Your task to perform on an android device: install app "File Manager" Image 0: 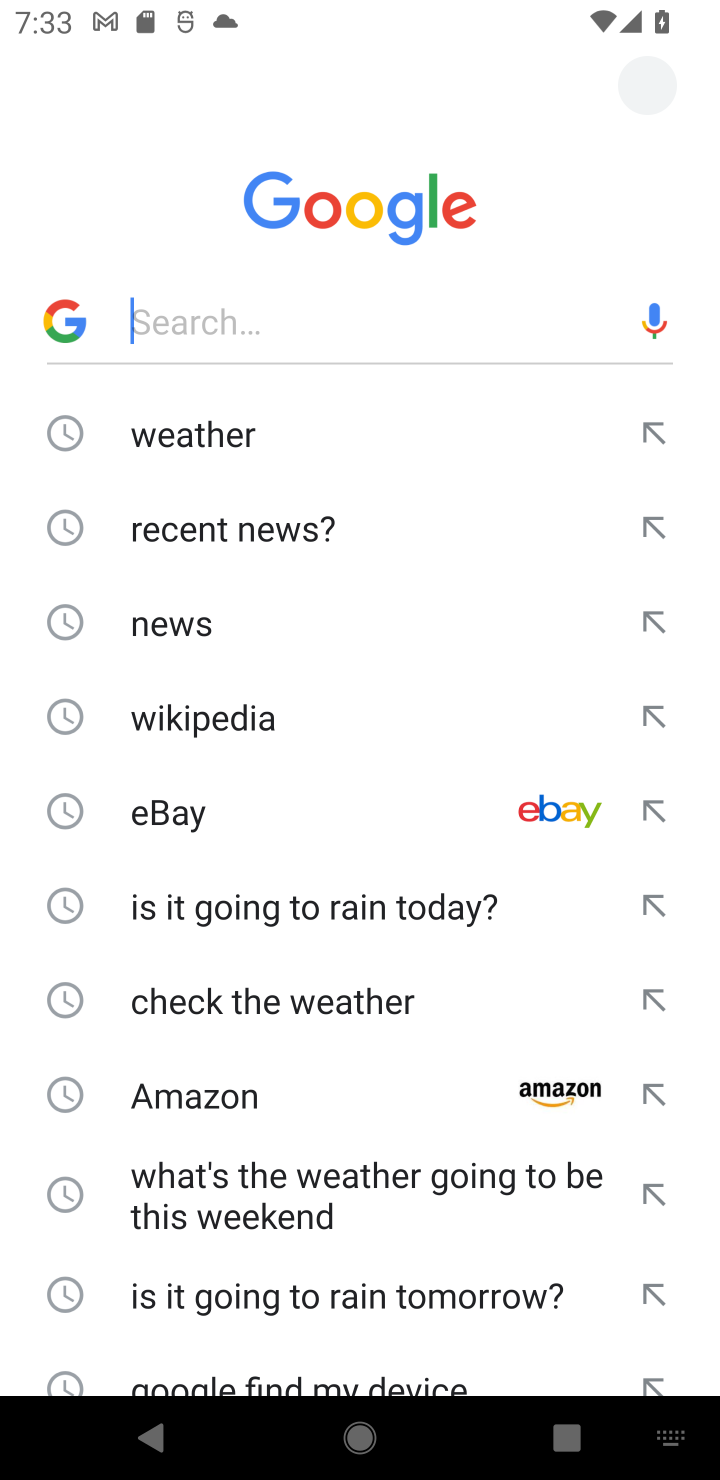
Step 0: press back button
Your task to perform on an android device: install app "File Manager" Image 1: 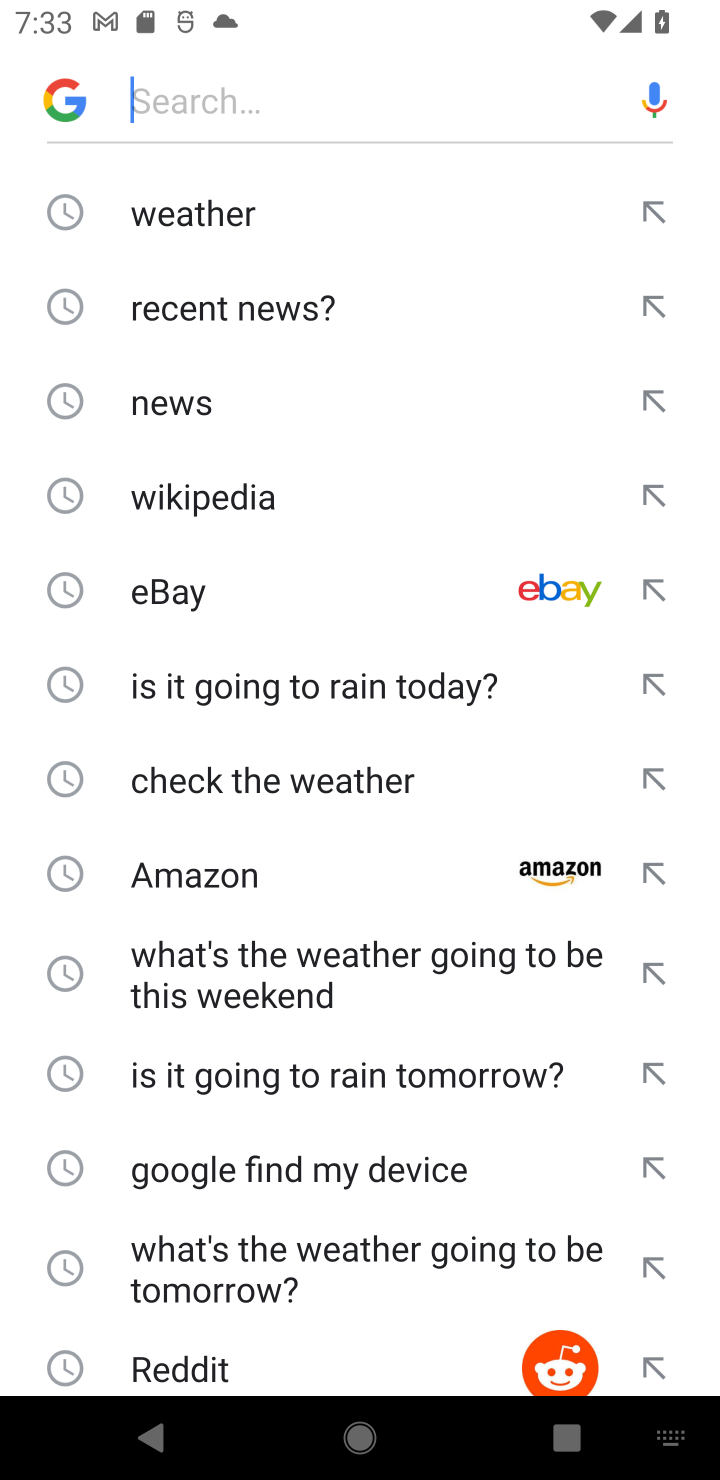
Step 1: press back button
Your task to perform on an android device: install app "File Manager" Image 2: 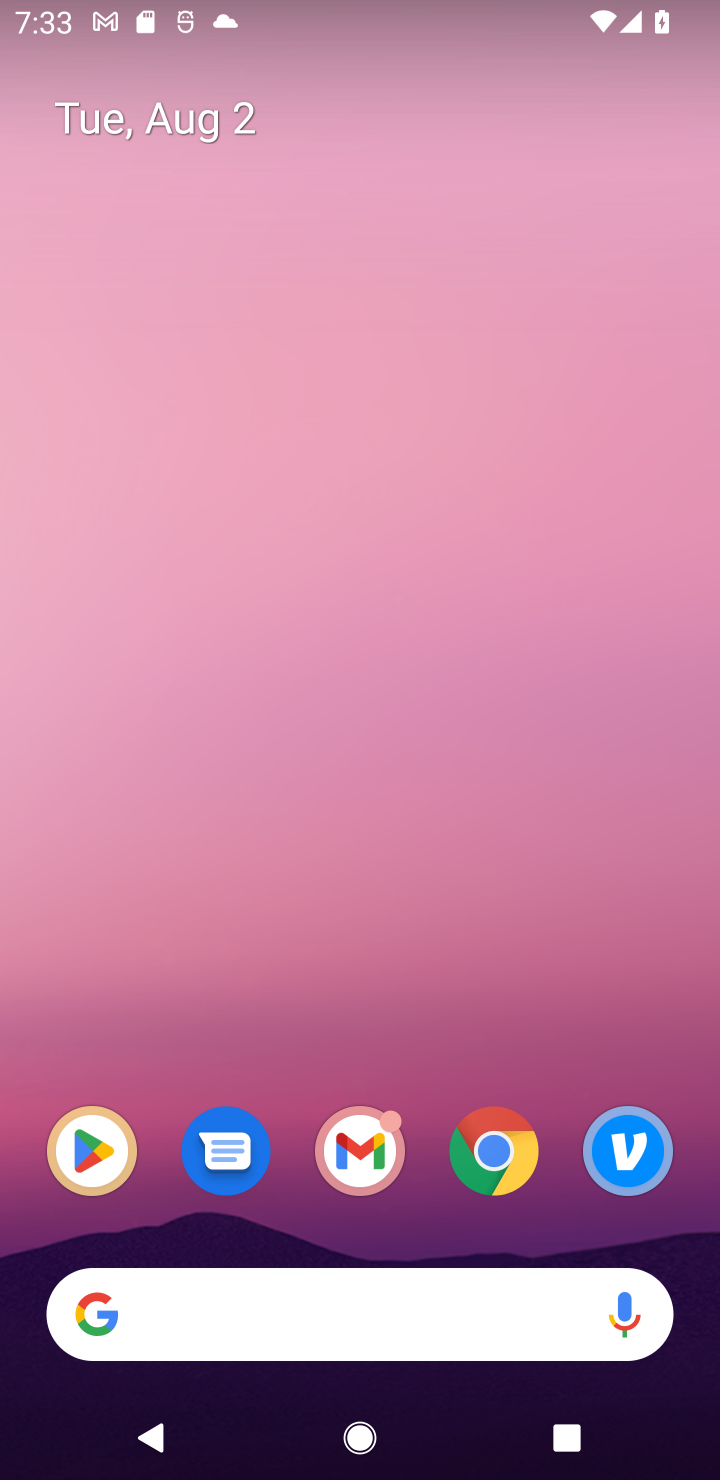
Step 2: click (108, 1134)
Your task to perform on an android device: install app "File Manager" Image 3: 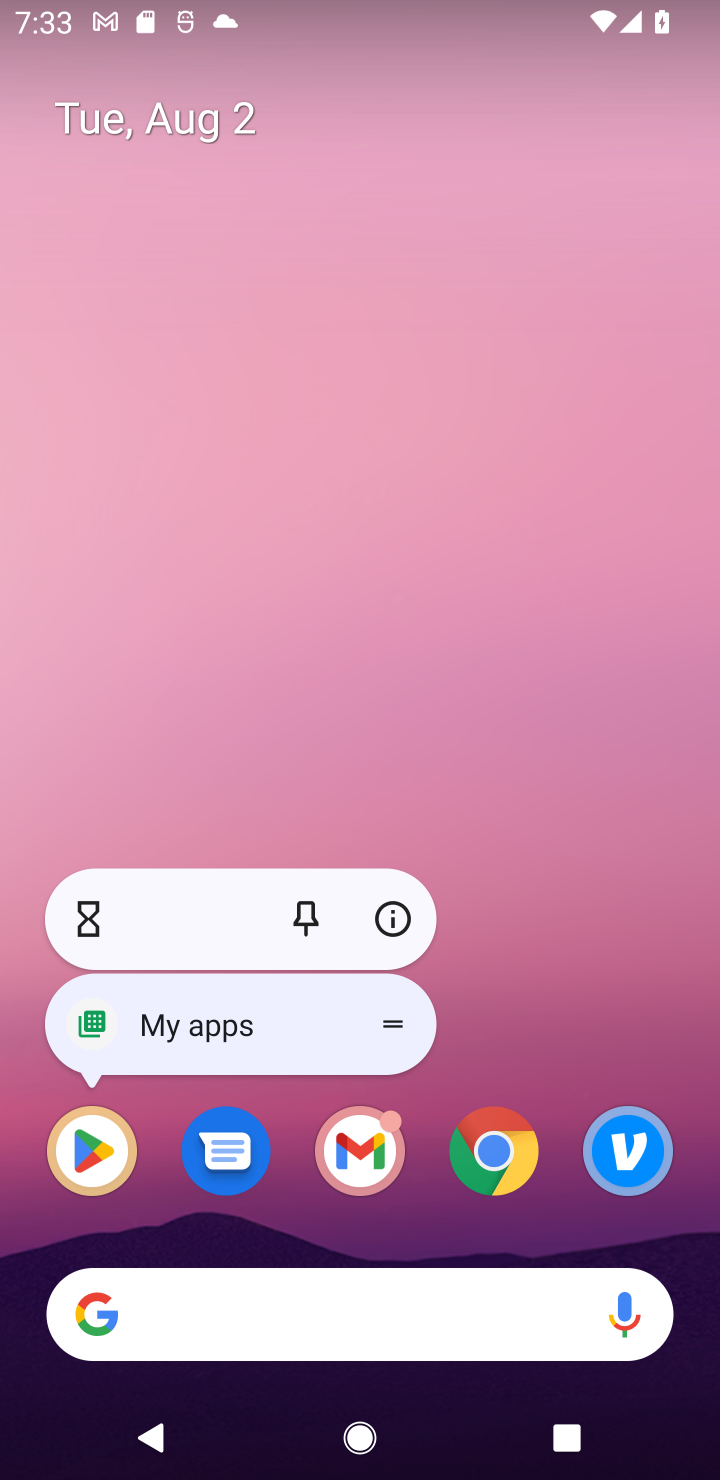
Step 3: click (108, 1134)
Your task to perform on an android device: install app "File Manager" Image 4: 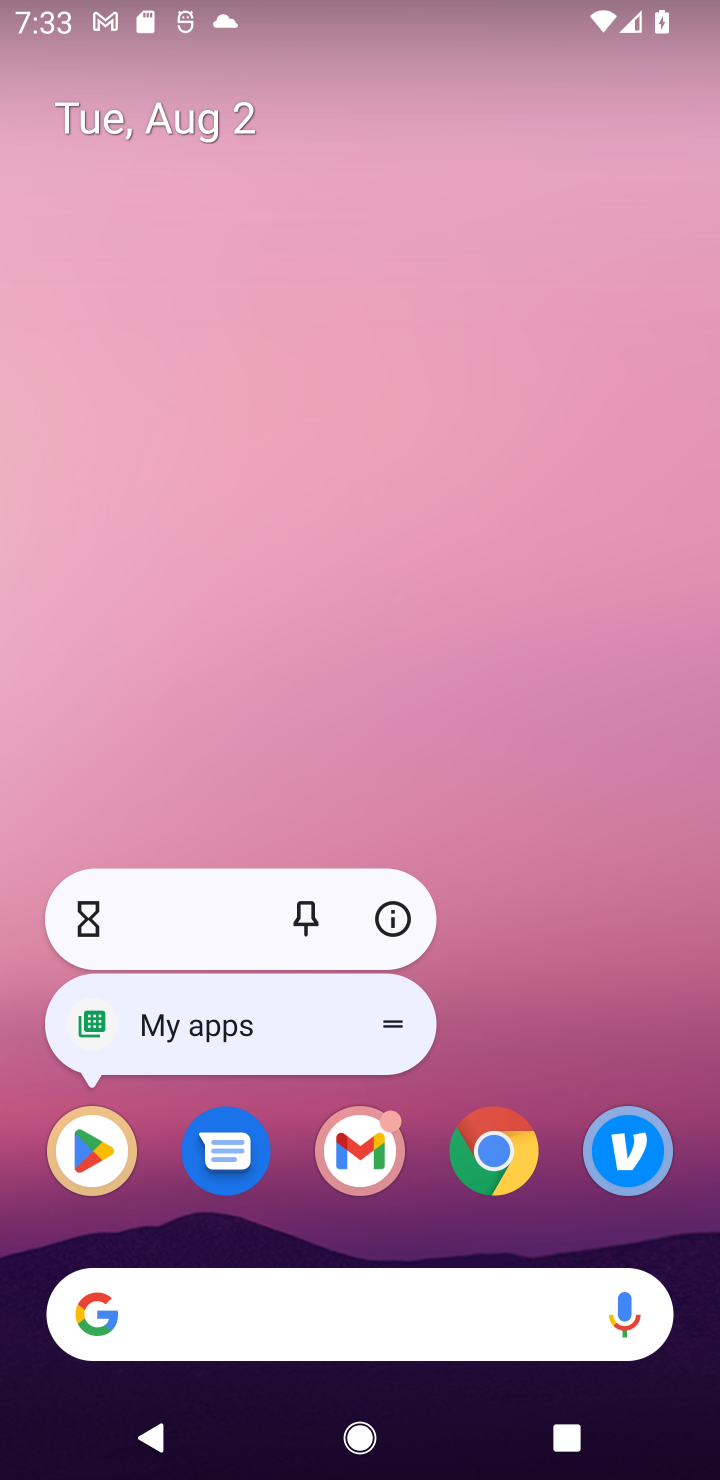
Step 4: click (85, 1158)
Your task to perform on an android device: install app "File Manager" Image 5: 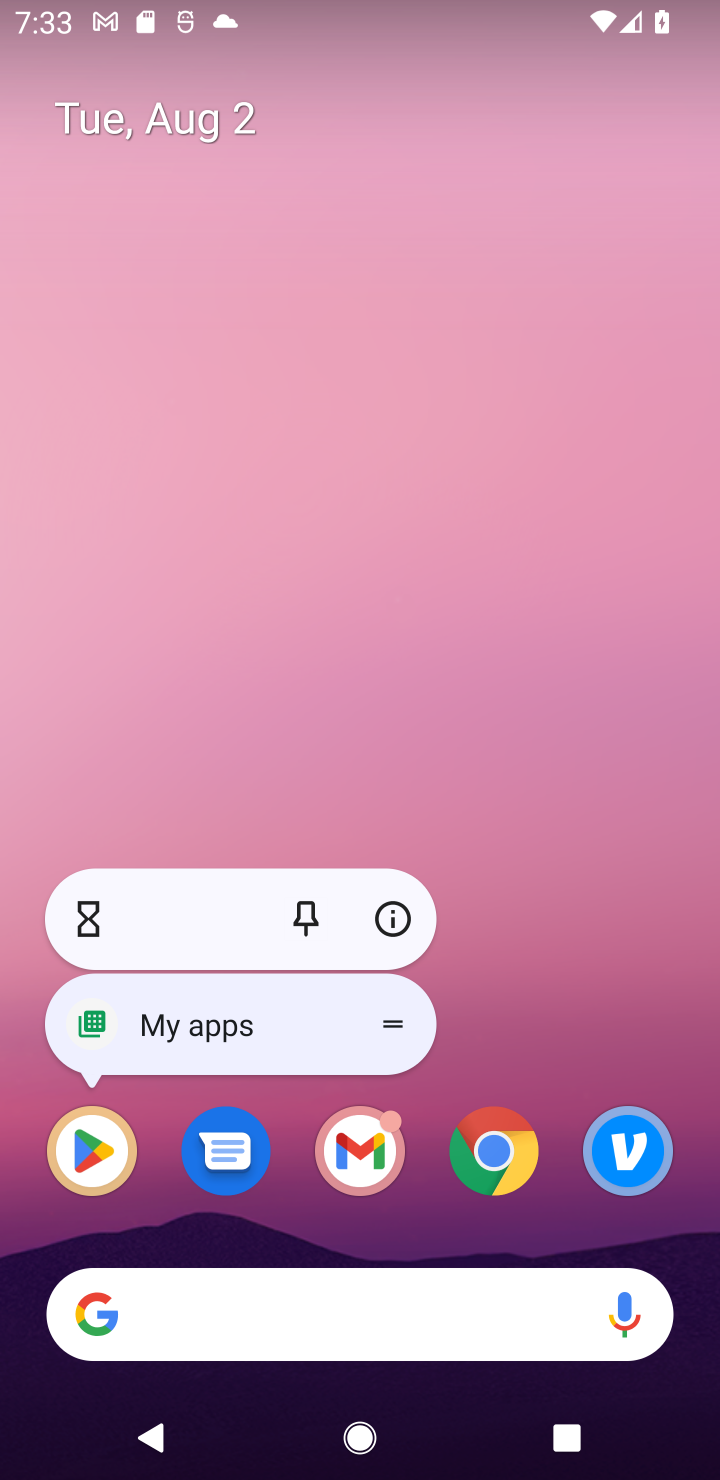
Step 5: click (127, 1147)
Your task to perform on an android device: install app "File Manager" Image 6: 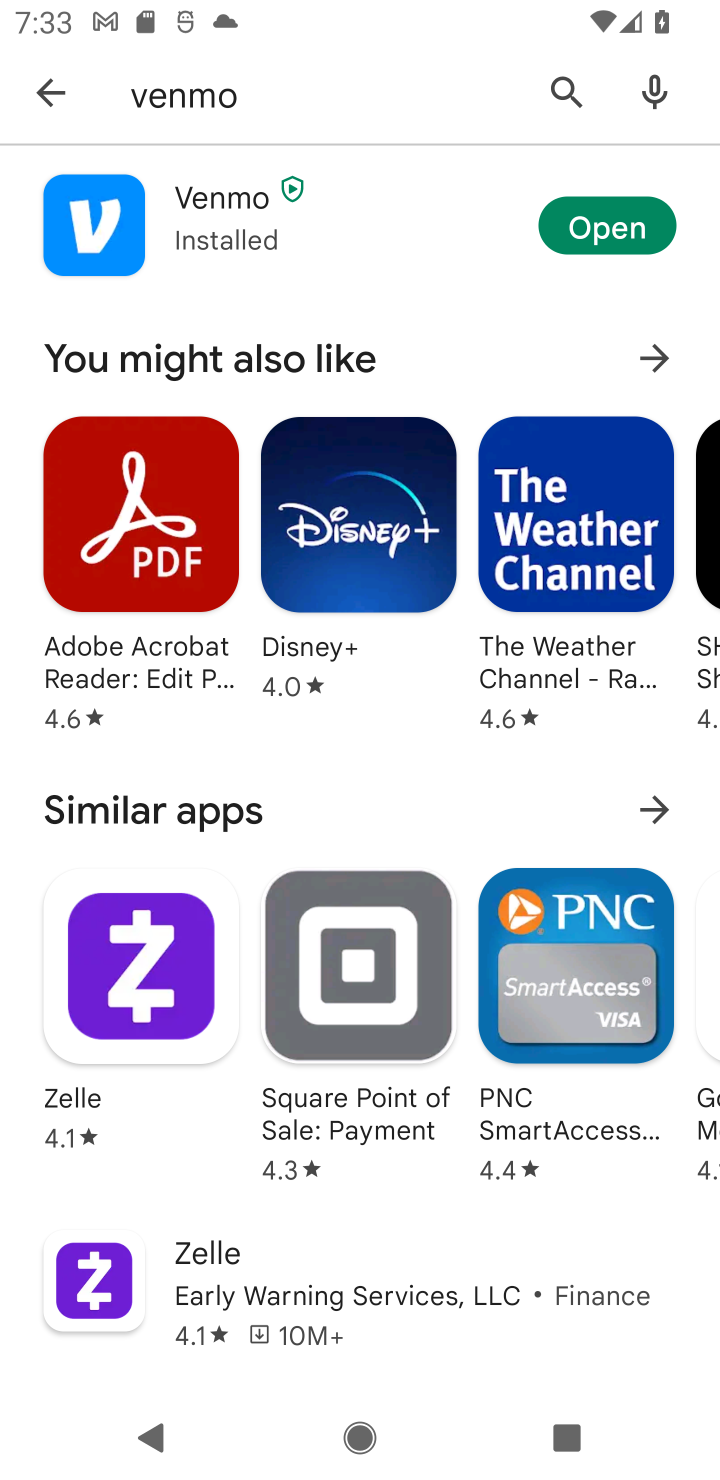
Step 6: click (555, 89)
Your task to perform on an android device: install app "File Manager" Image 7: 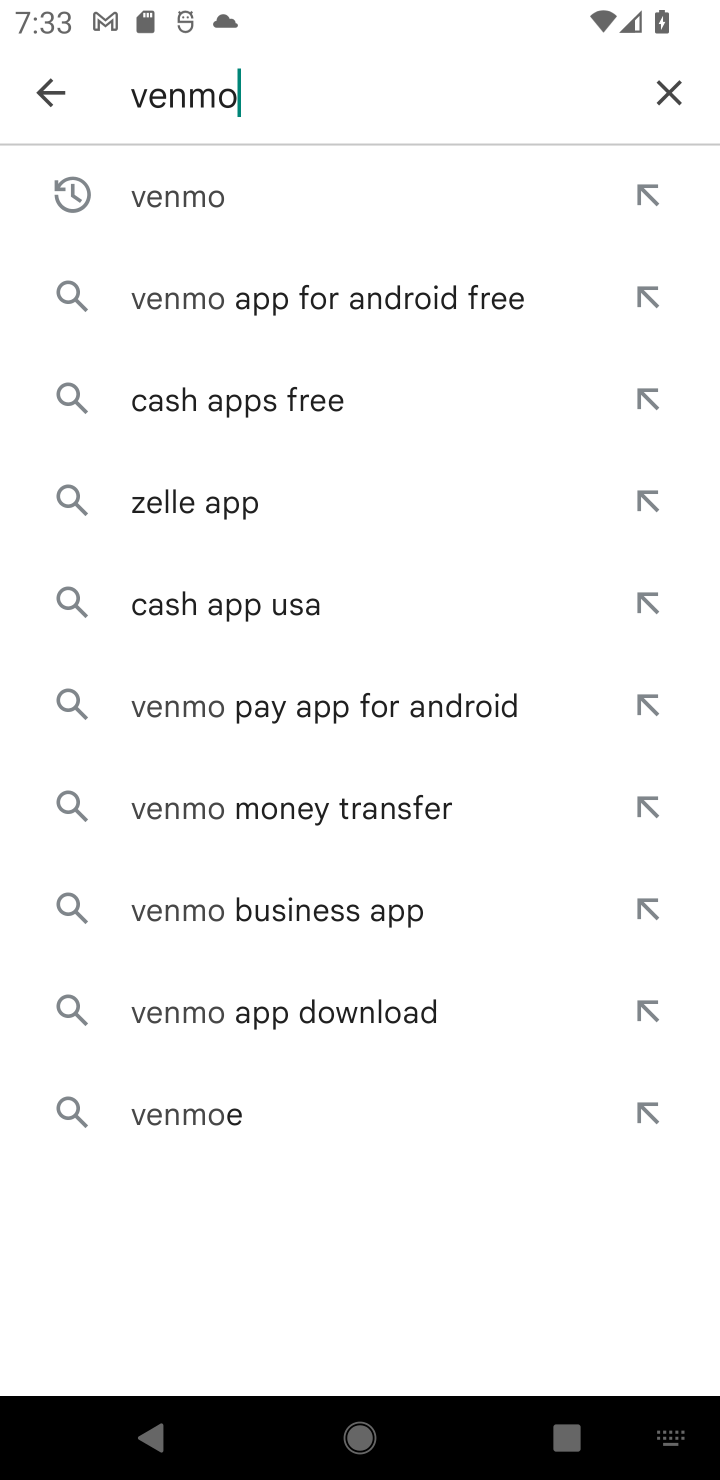
Step 7: click (663, 101)
Your task to perform on an android device: install app "File Manager" Image 8: 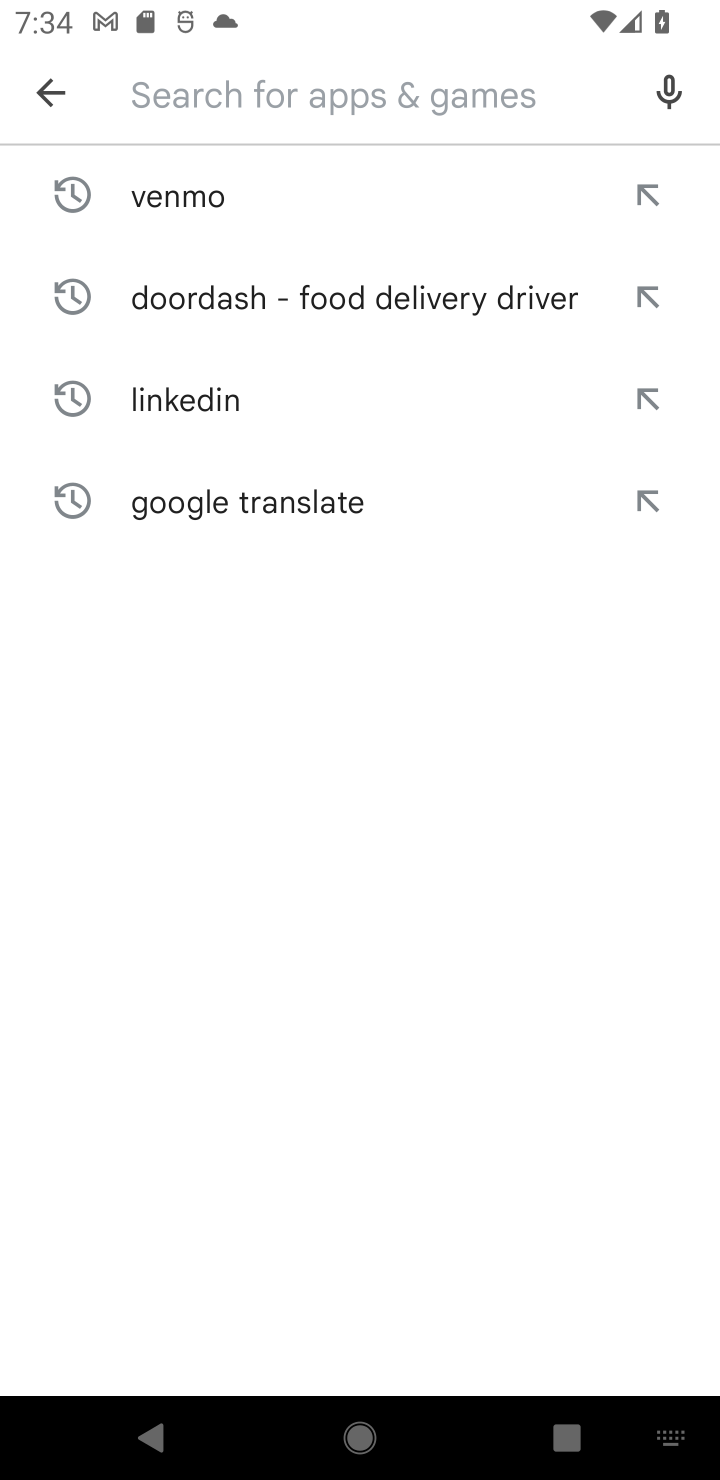
Step 8: type "File Manager"
Your task to perform on an android device: install app "File Manager" Image 9: 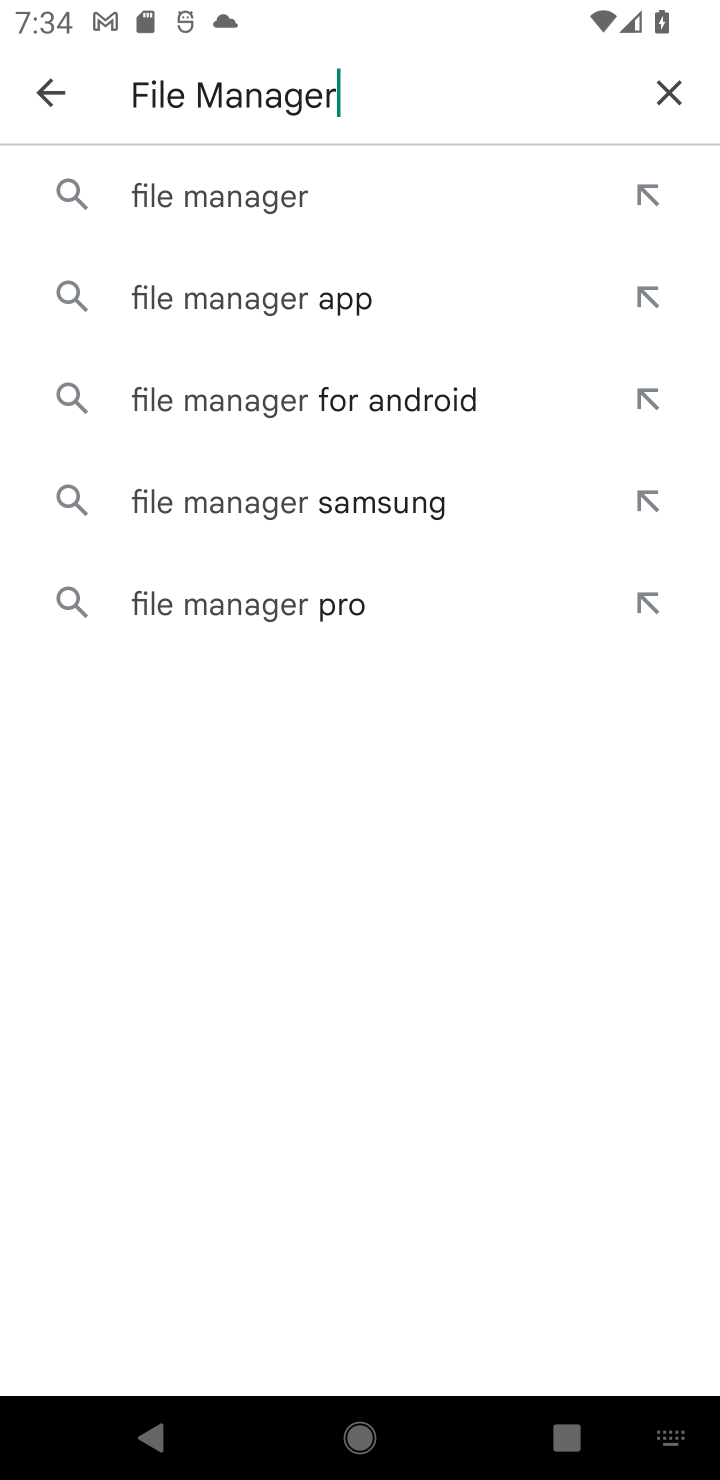
Step 9: click (351, 213)
Your task to perform on an android device: install app "File Manager" Image 10: 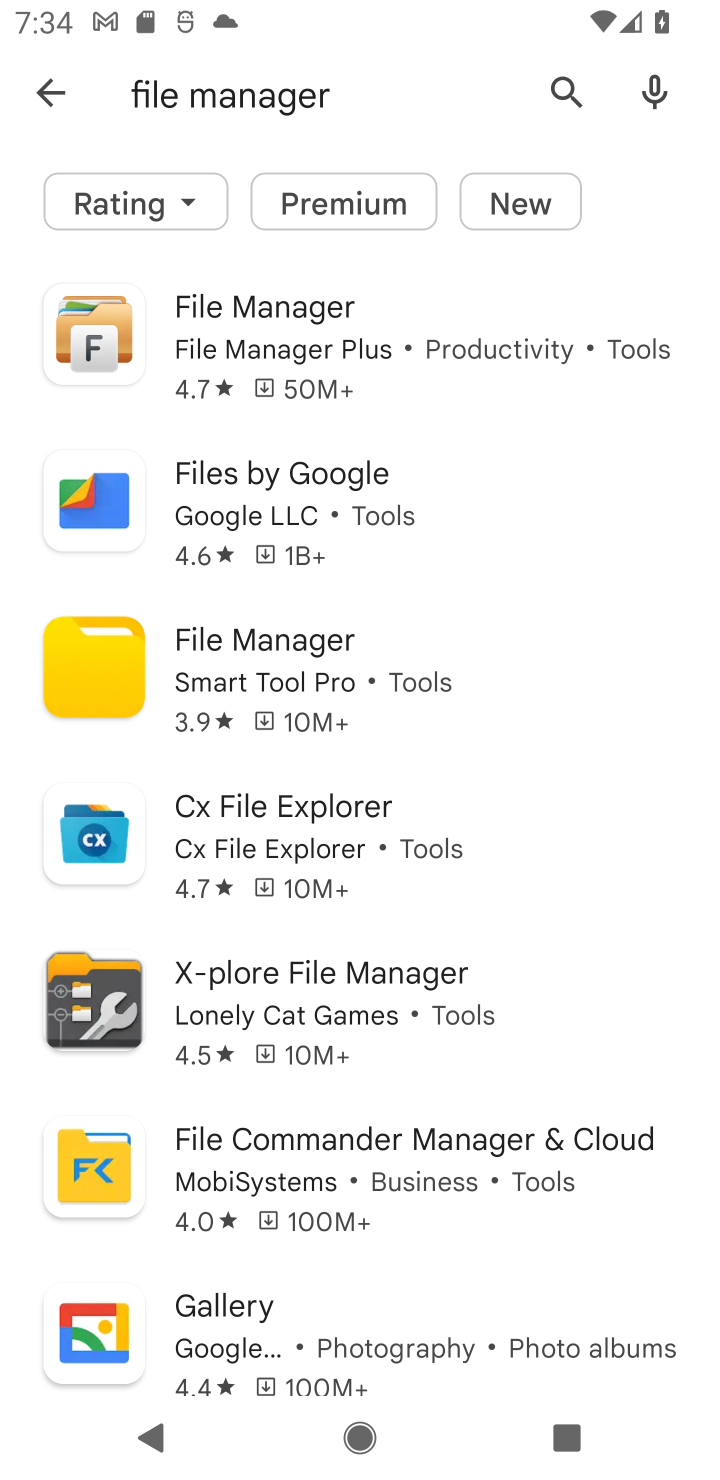
Step 10: click (385, 329)
Your task to perform on an android device: install app "File Manager" Image 11: 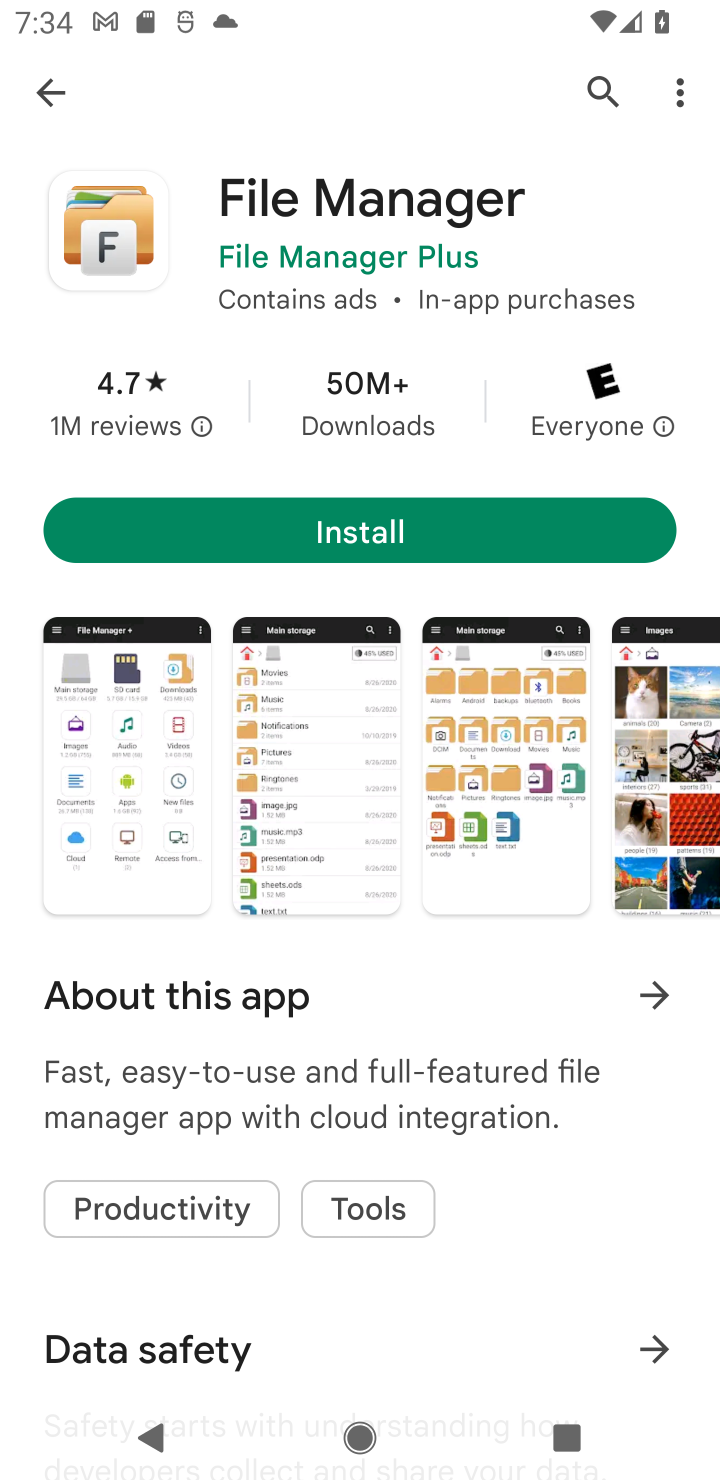
Step 11: click (448, 539)
Your task to perform on an android device: install app "File Manager" Image 12: 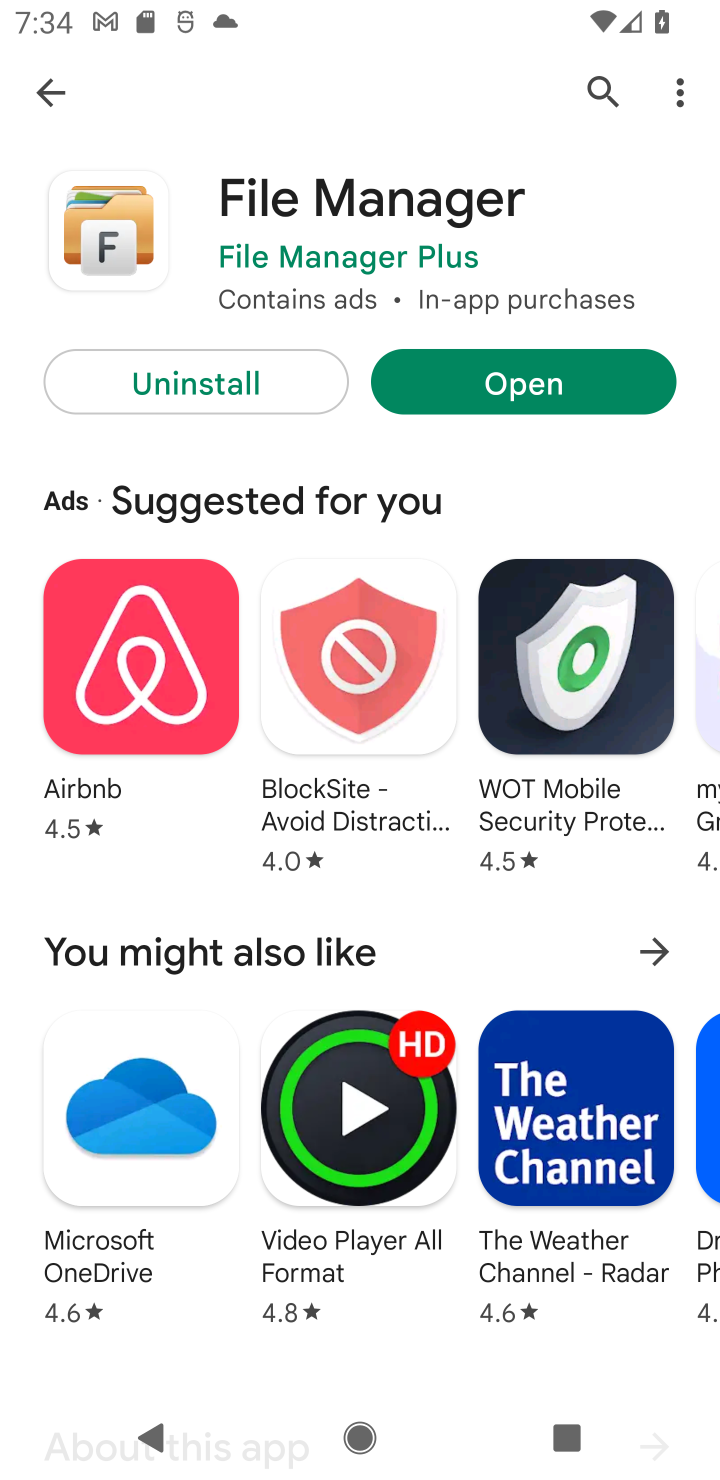
Step 12: task complete